Your task to perform on an android device: move a message to another label in the gmail app Image 0: 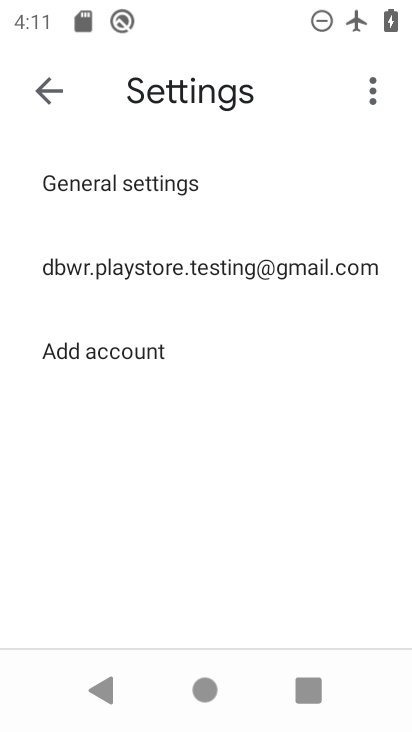
Step 0: press home button
Your task to perform on an android device: move a message to another label in the gmail app Image 1: 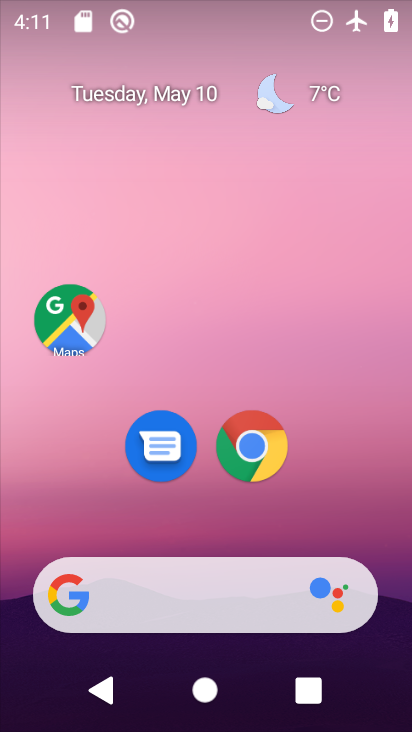
Step 1: drag from (333, 523) to (232, 130)
Your task to perform on an android device: move a message to another label in the gmail app Image 2: 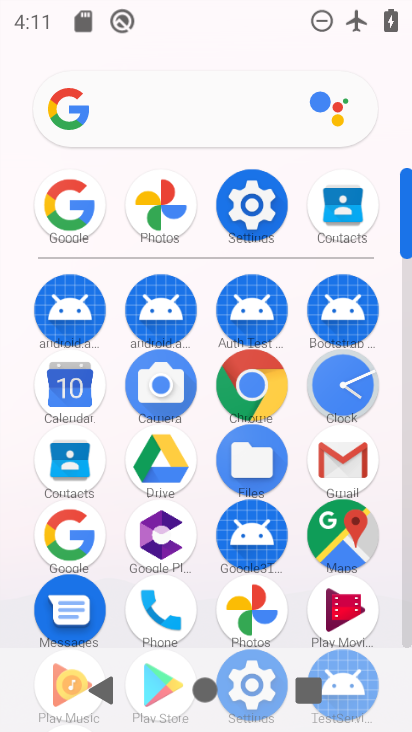
Step 2: click (340, 445)
Your task to perform on an android device: move a message to another label in the gmail app Image 3: 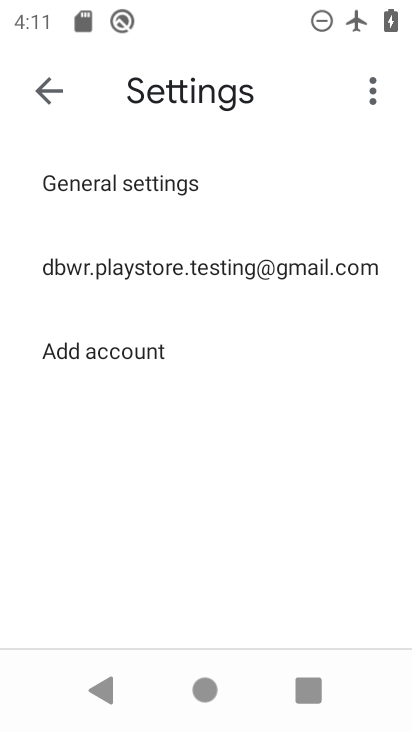
Step 3: click (54, 98)
Your task to perform on an android device: move a message to another label in the gmail app Image 4: 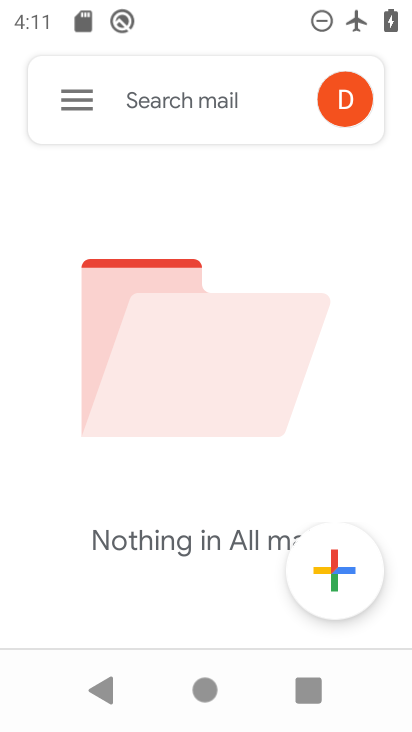
Step 4: click (72, 97)
Your task to perform on an android device: move a message to another label in the gmail app Image 5: 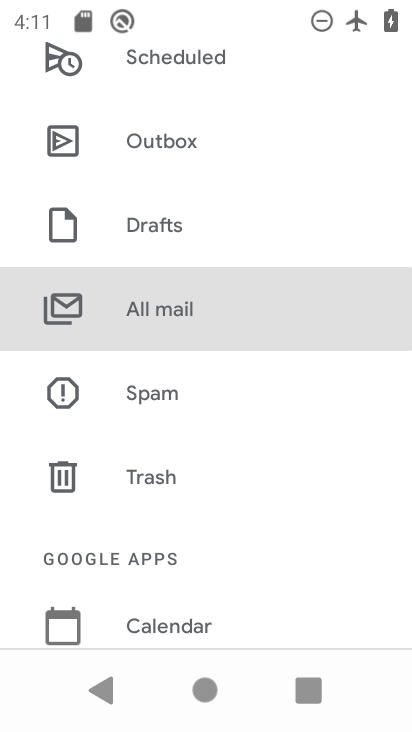
Step 5: click (185, 320)
Your task to perform on an android device: move a message to another label in the gmail app Image 6: 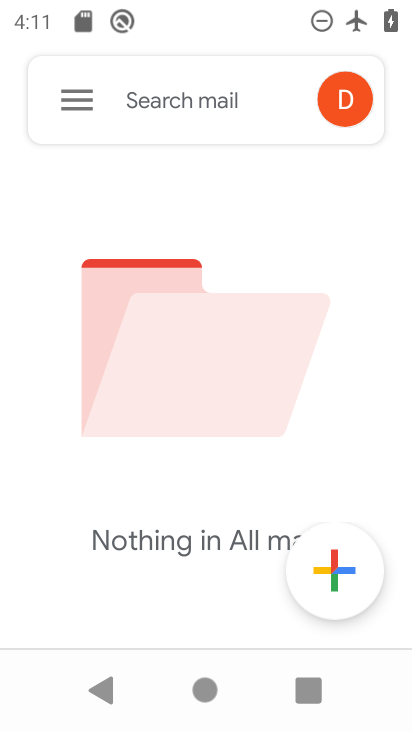
Step 6: task complete